Your task to perform on an android device: uninstall "Google Duo" Image 0: 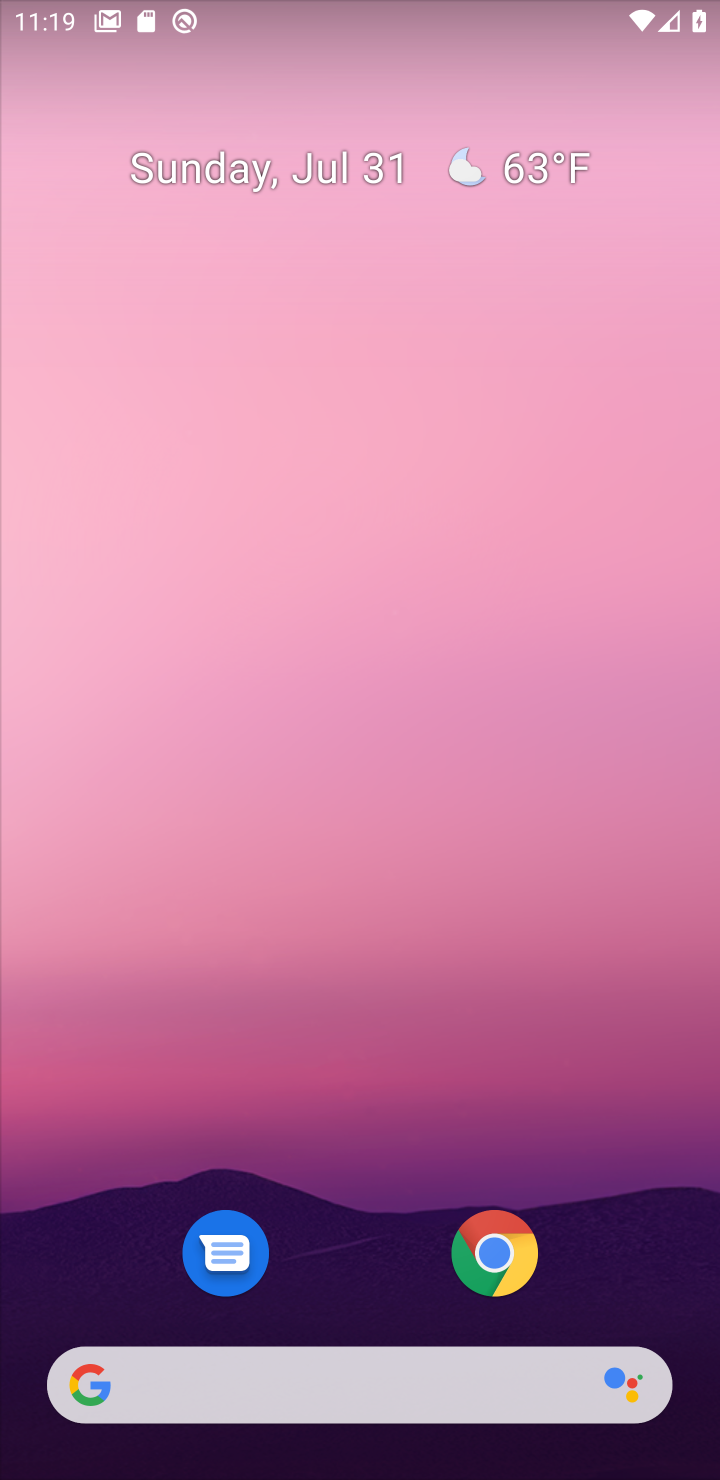
Step 0: drag from (378, 1204) to (406, 256)
Your task to perform on an android device: uninstall "Google Duo" Image 1: 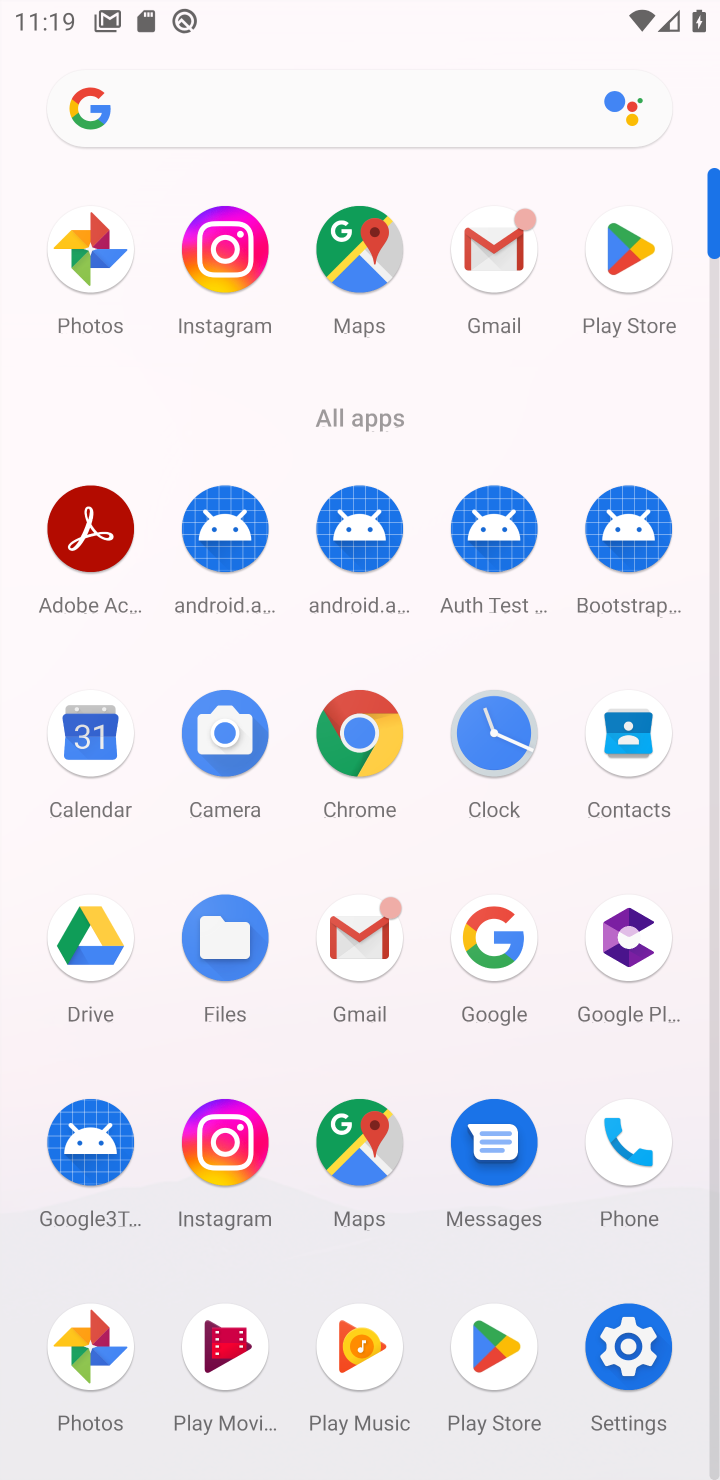
Step 1: click (630, 253)
Your task to perform on an android device: uninstall "Google Duo" Image 2: 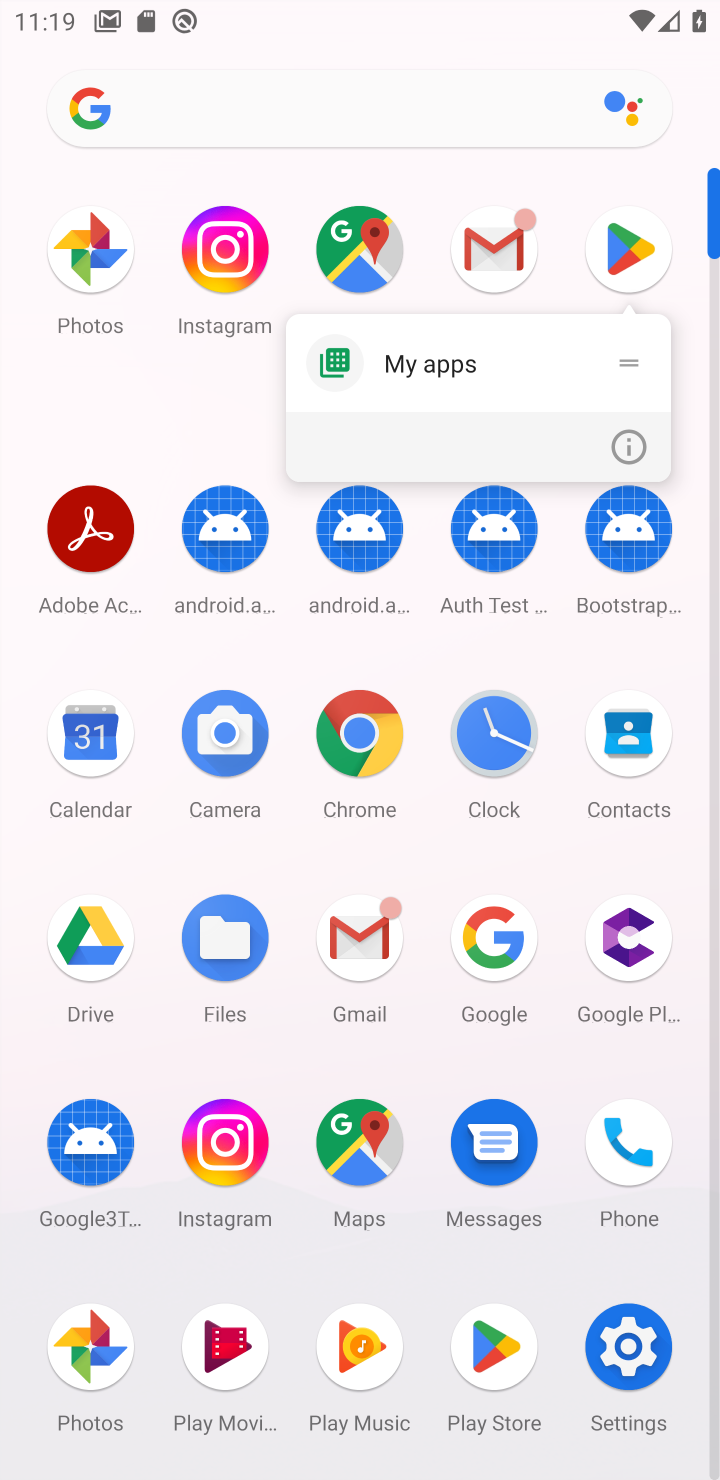
Step 2: click (631, 253)
Your task to perform on an android device: uninstall "Google Duo" Image 3: 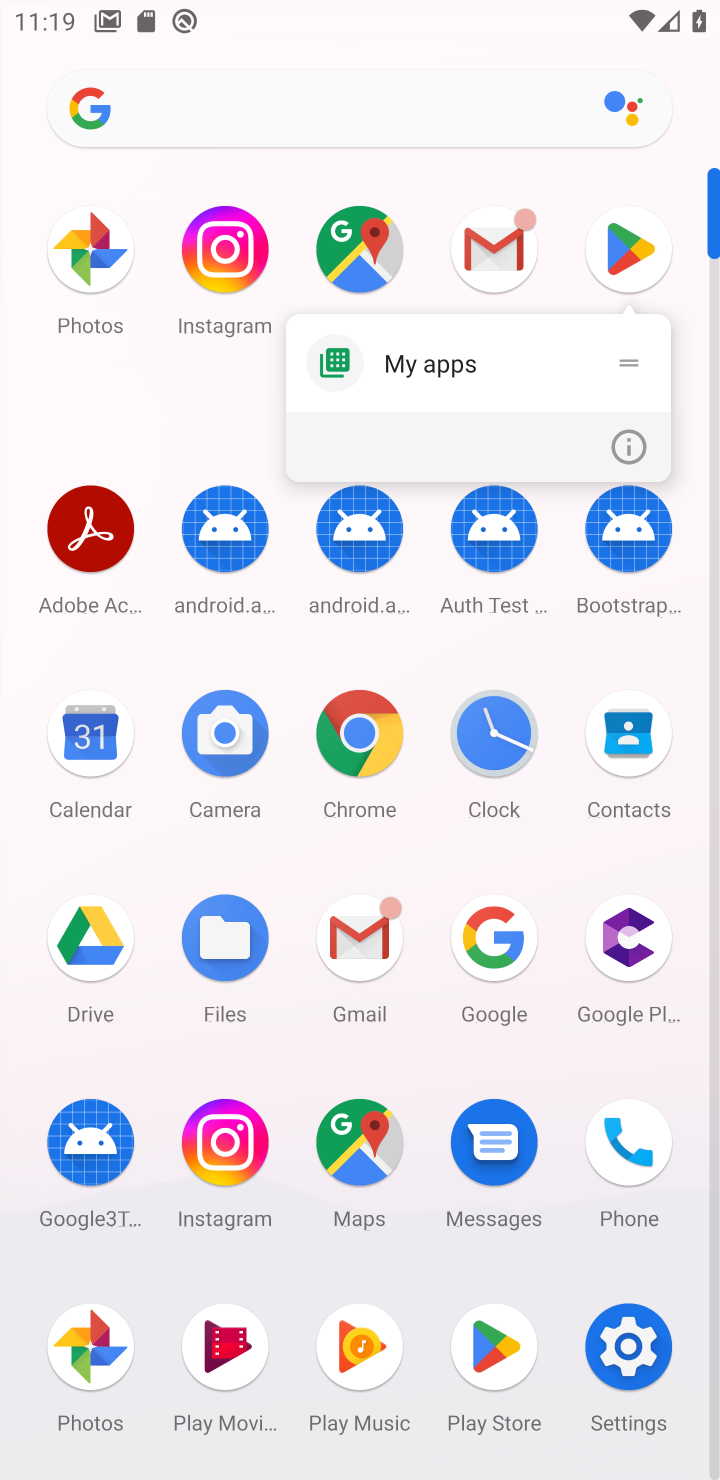
Step 3: click (640, 228)
Your task to perform on an android device: uninstall "Google Duo" Image 4: 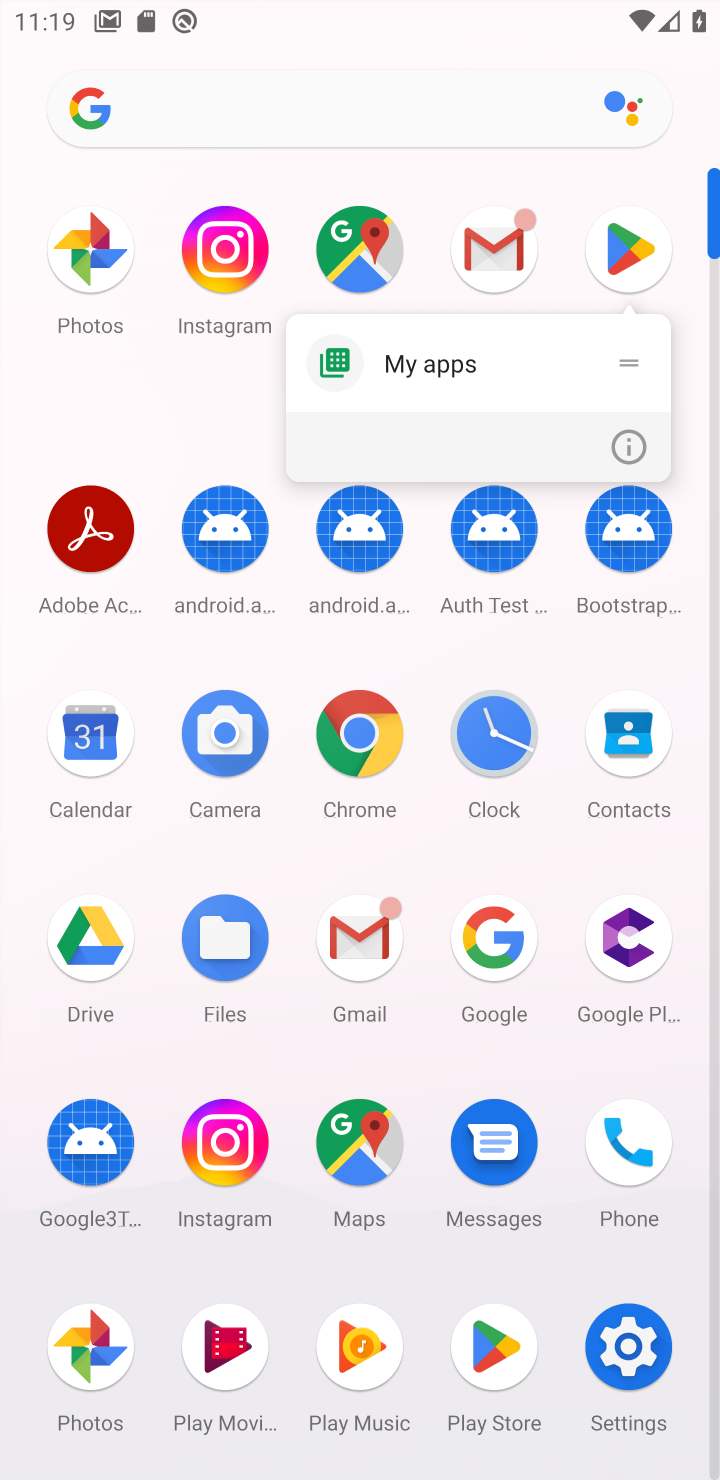
Step 4: click (633, 245)
Your task to perform on an android device: uninstall "Google Duo" Image 5: 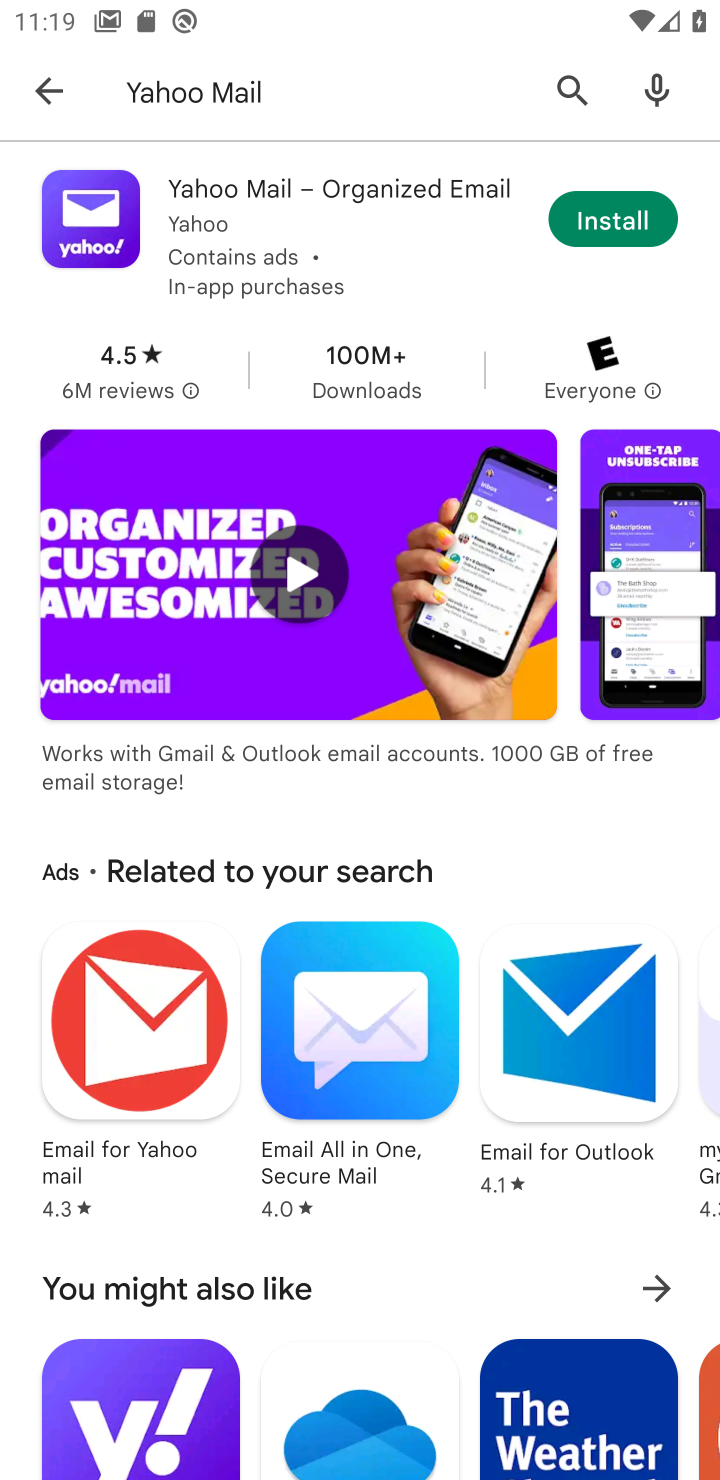
Step 5: click (310, 80)
Your task to perform on an android device: uninstall "Google Duo" Image 6: 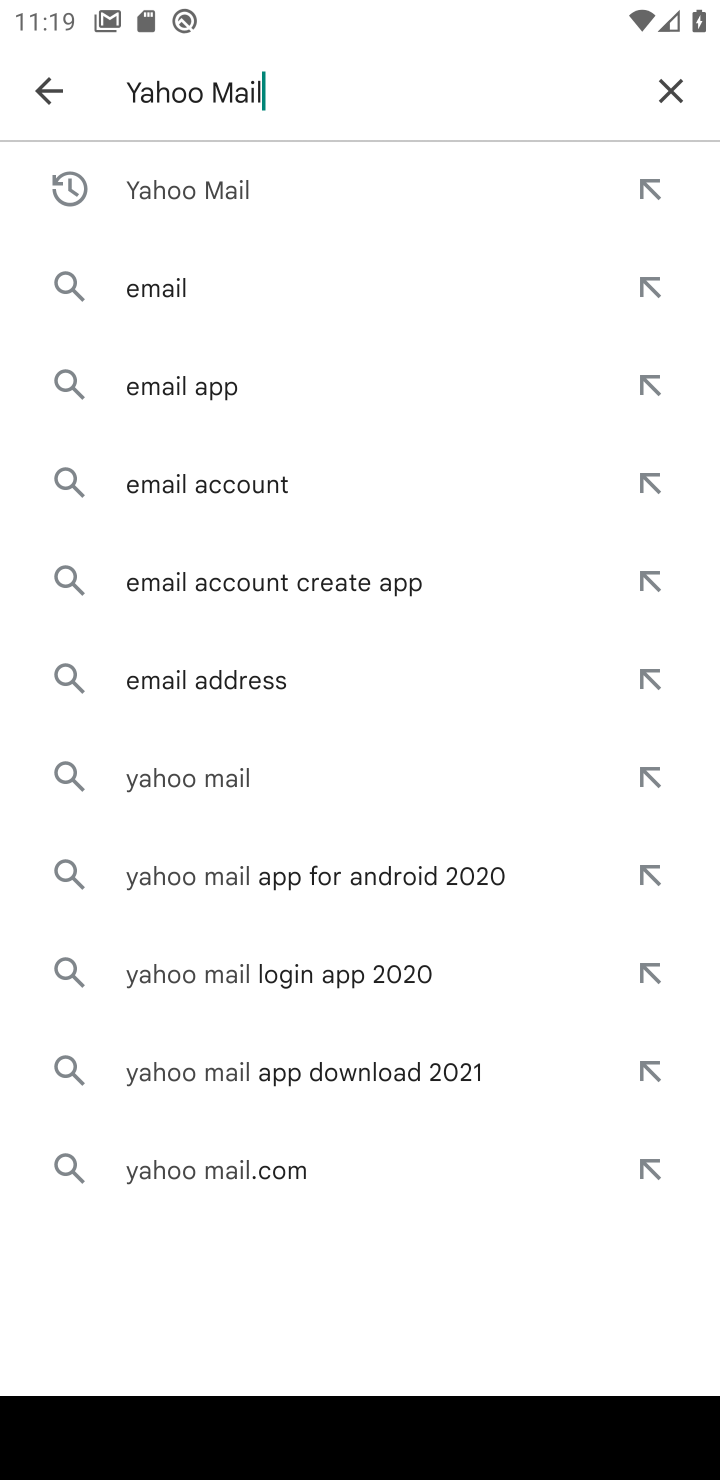
Step 6: click (668, 75)
Your task to perform on an android device: uninstall "Google Duo" Image 7: 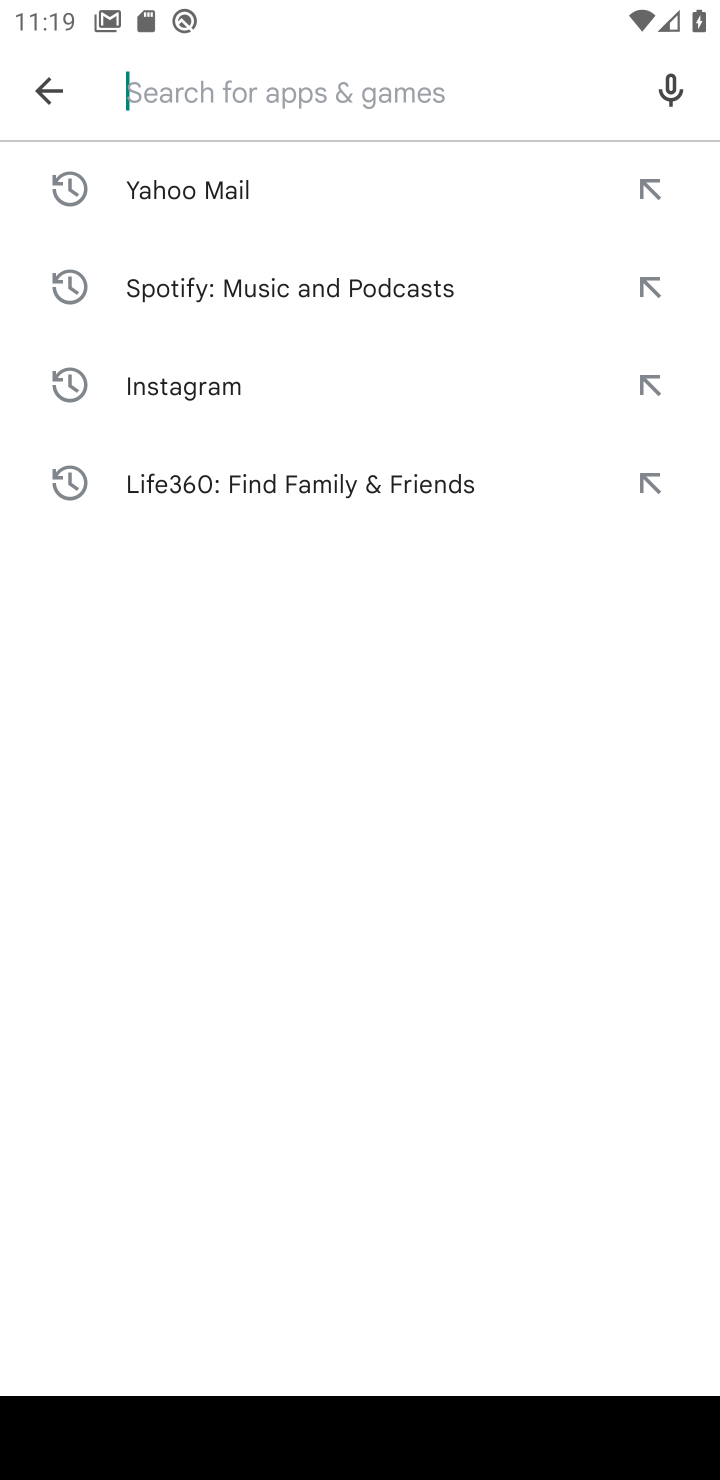
Step 7: type "Google Duo"
Your task to perform on an android device: uninstall "Google Duo" Image 8: 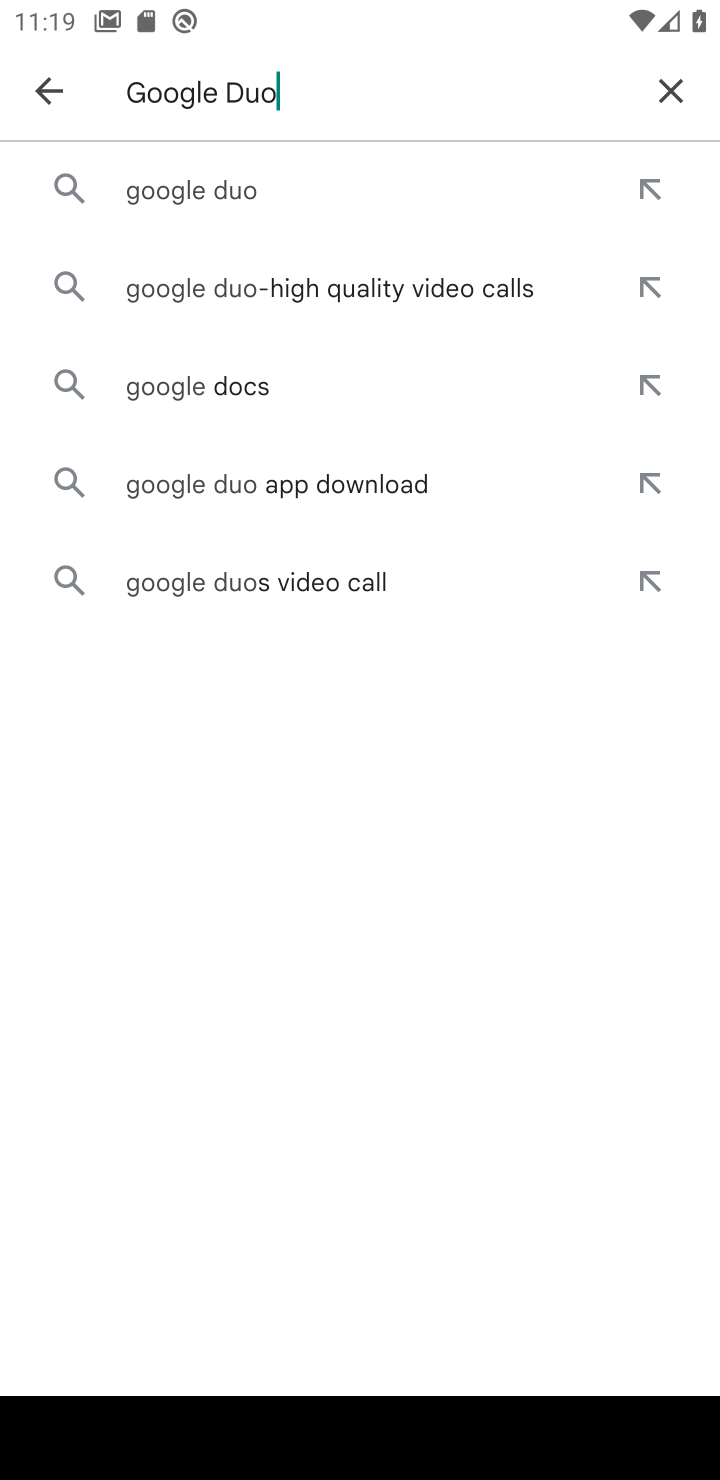
Step 8: click (244, 186)
Your task to perform on an android device: uninstall "Google Duo" Image 9: 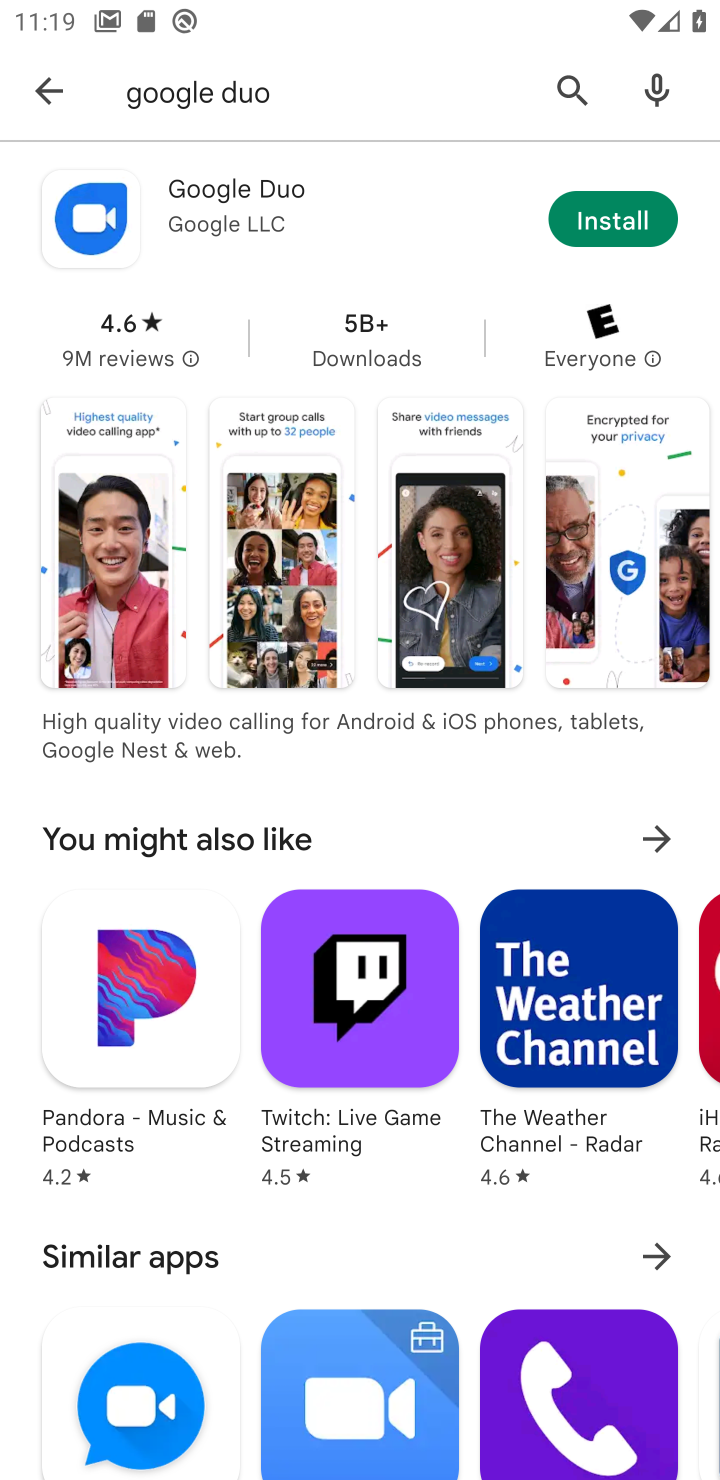
Step 9: task complete